Your task to perform on an android device: Open eBay Image 0: 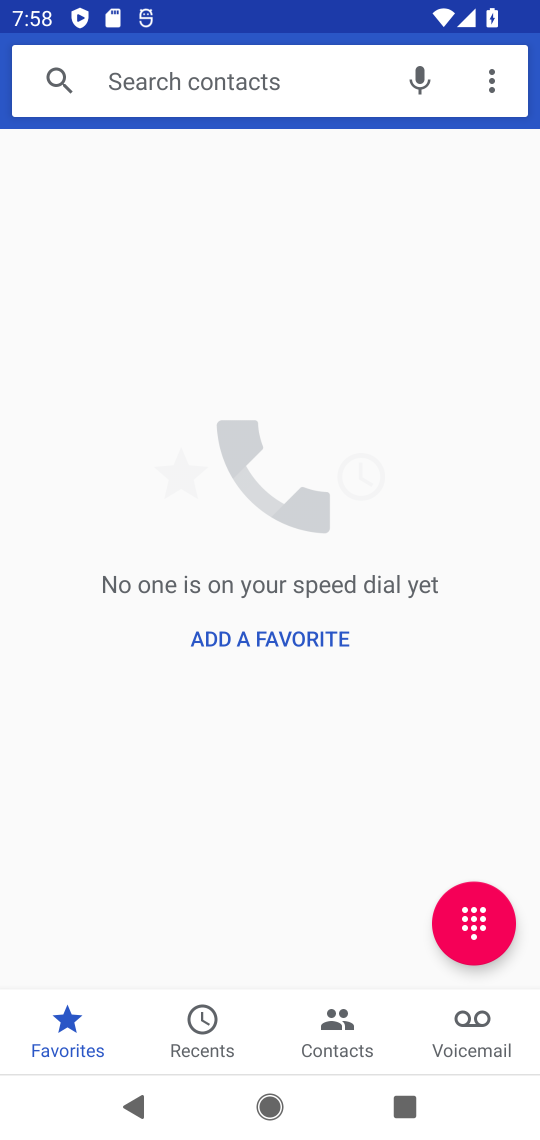
Step 0: press home button
Your task to perform on an android device: Open eBay Image 1: 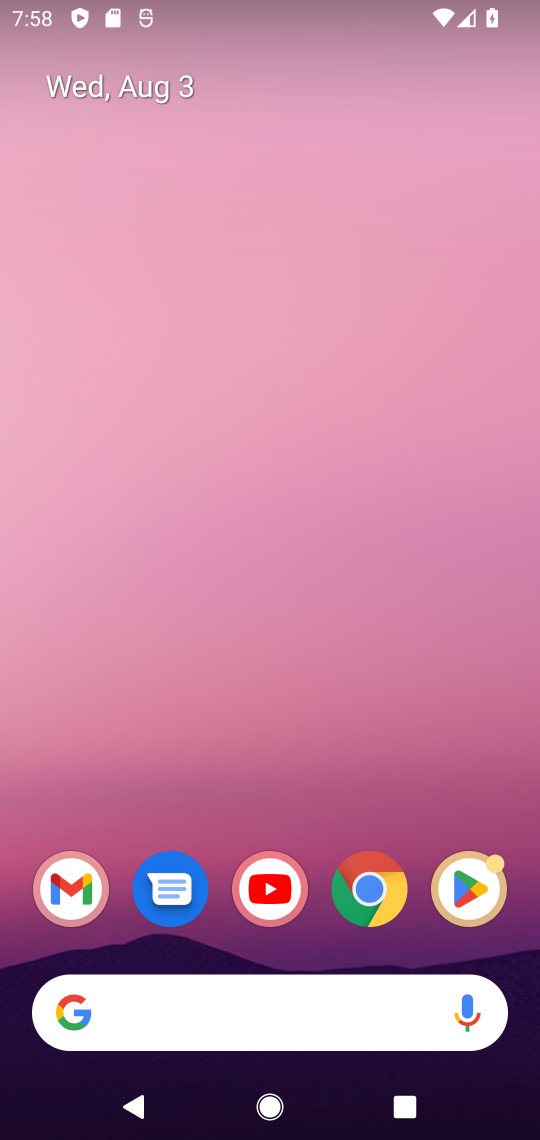
Step 1: click (353, 893)
Your task to perform on an android device: Open eBay Image 2: 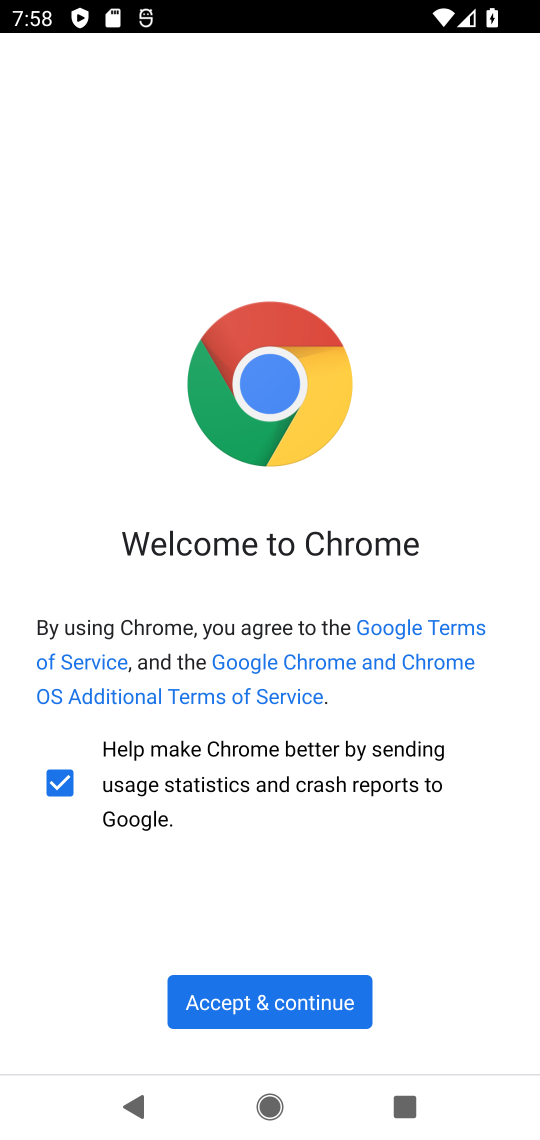
Step 2: click (306, 1008)
Your task to perform on an android device: Open eBay Image 3: 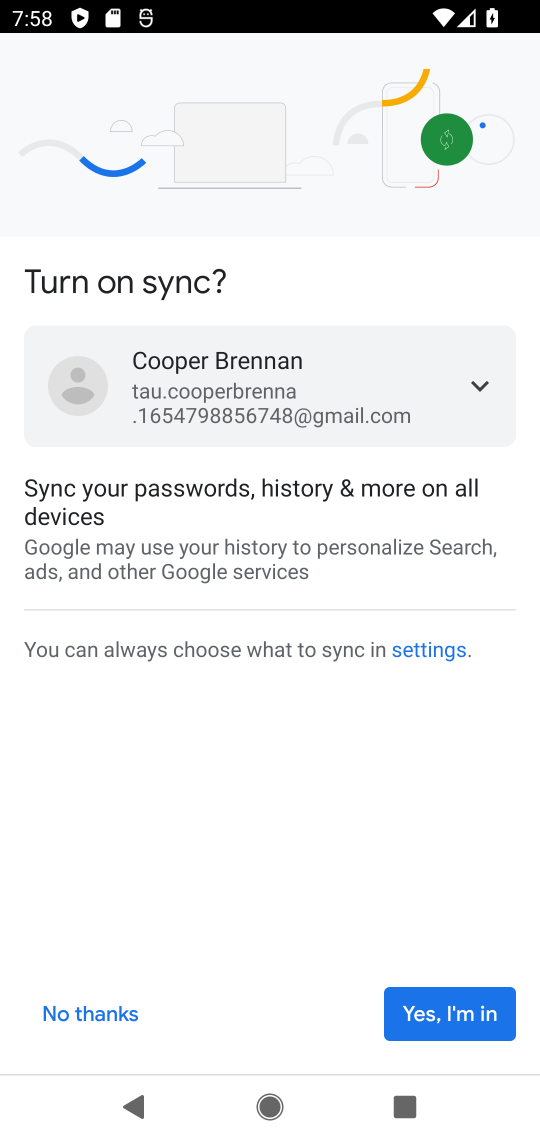
Step 3: click (481, 998)
Your task to perform on an android device: Open eBay Image 4: 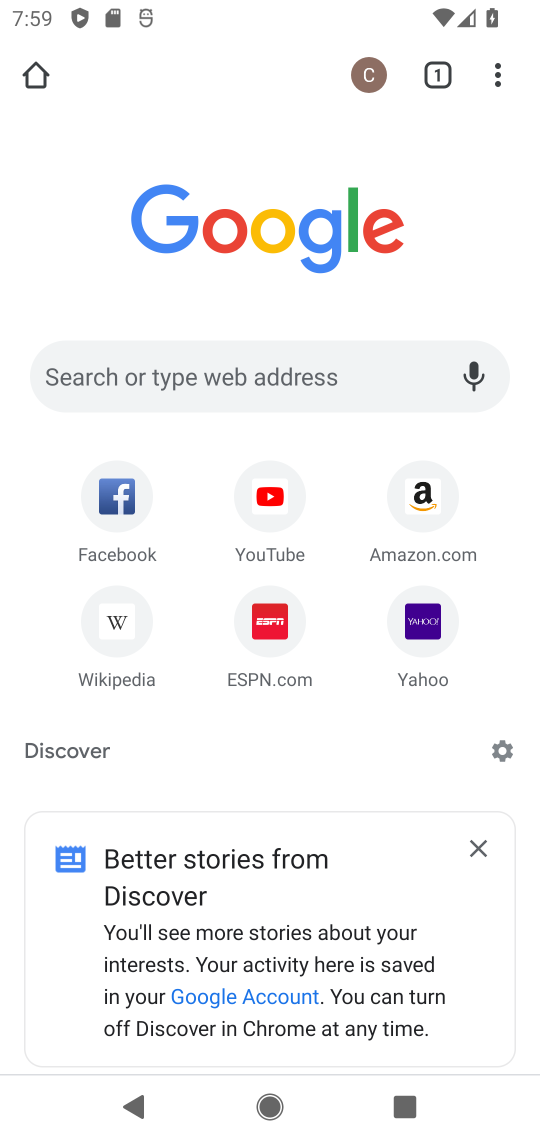
Step 4: click (270, 380)
Your task to perform on an android device: Open eBay Image 5: 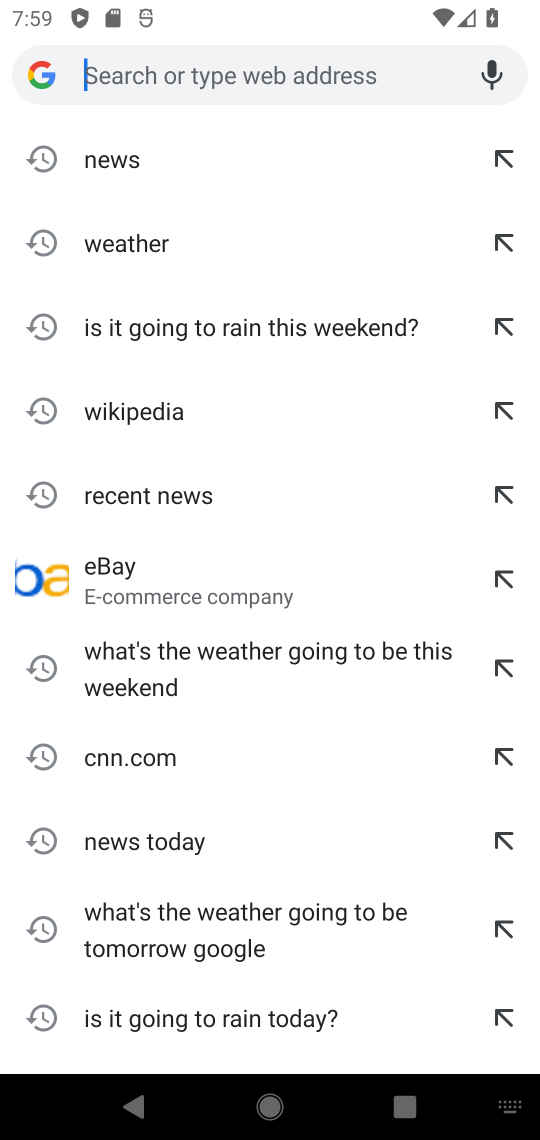
Step 5: type "ebay"
Your task to perform on an android device: Open eBay Image 6: 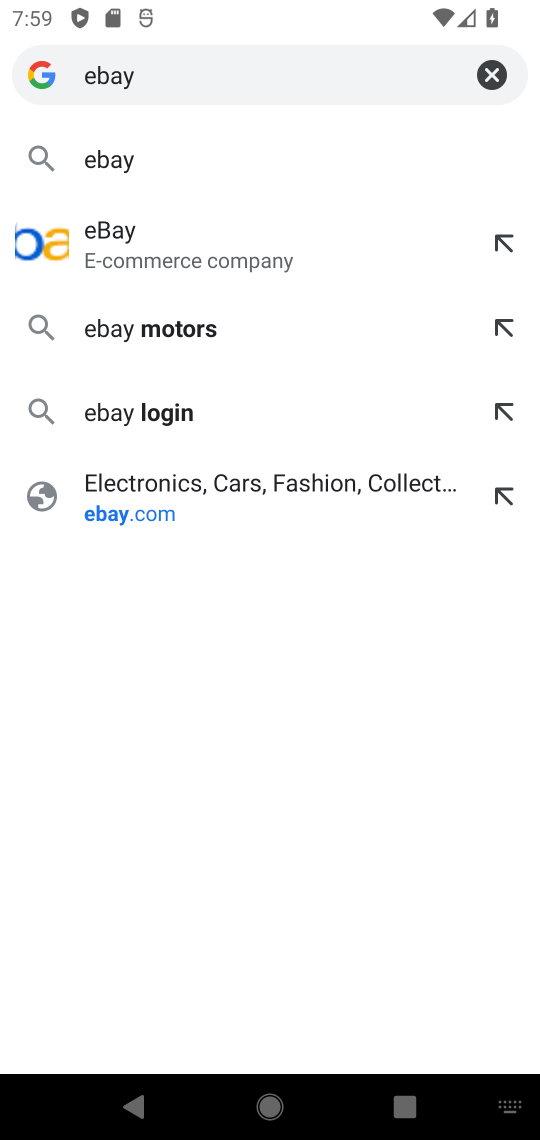
Step 6: click (304, 158)
Your task to perform on an android device: Open eBay Image 7: 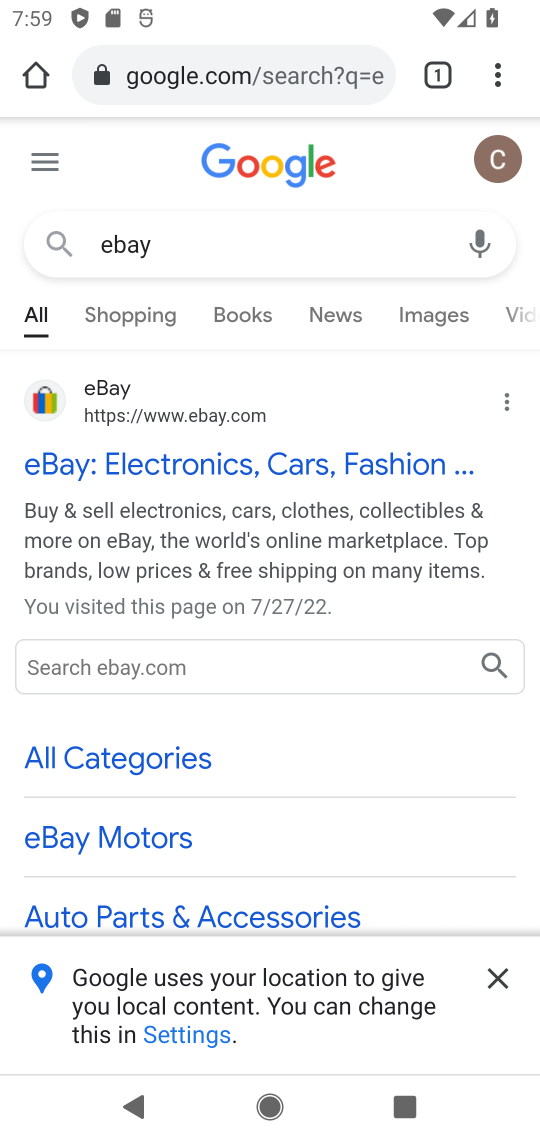
Step 7: click (189, 455)
Your task to perform on an android device: Open eBay Image 8: 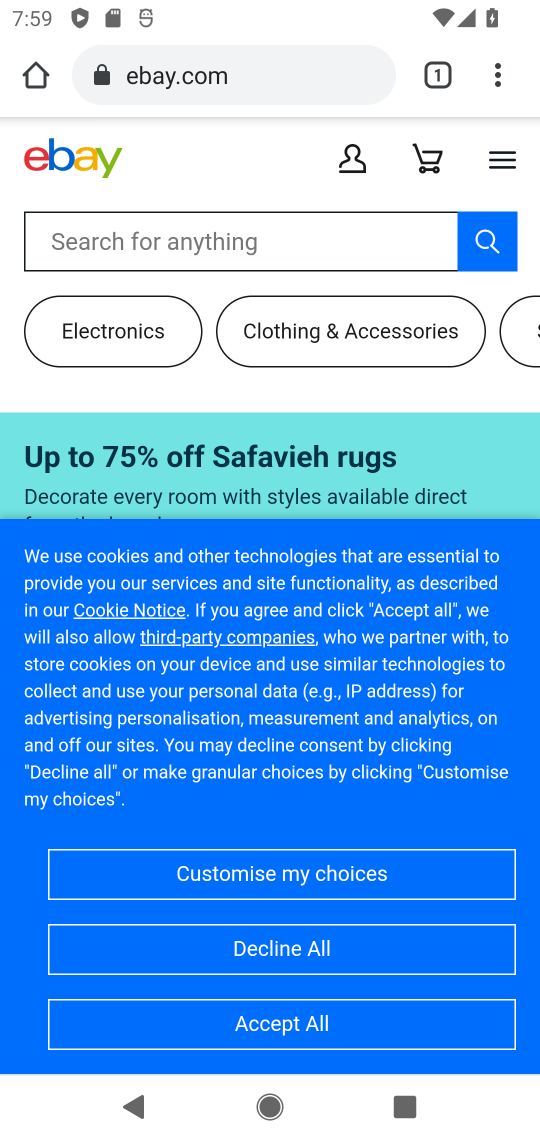
Step 8: task complete